Your task to perform on an android device: Go to Amazon Image 0: 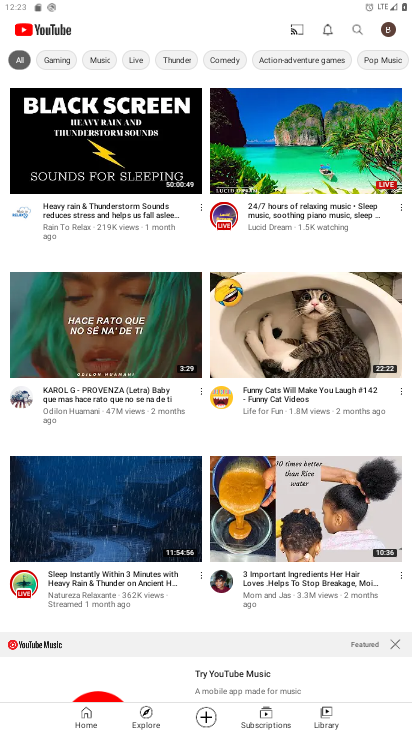
Step 0: press home button
Your task to perform on an android device: Go to Amazon Image 1: 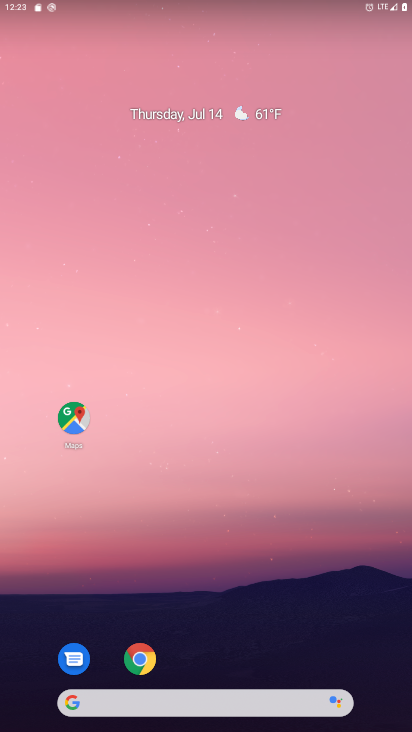
Step 1: click (148, 655)
Your task to perform on an android device: Go to Amazon Image 2: 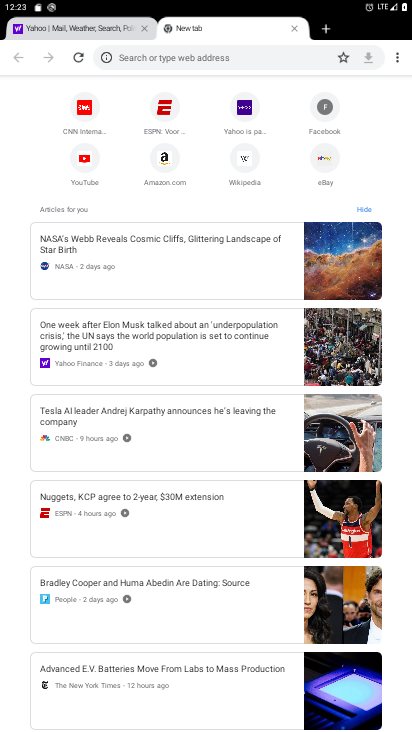
Step 2: click (161, 154)
Your task to perform on an android device: Go to Amazon Image 3: 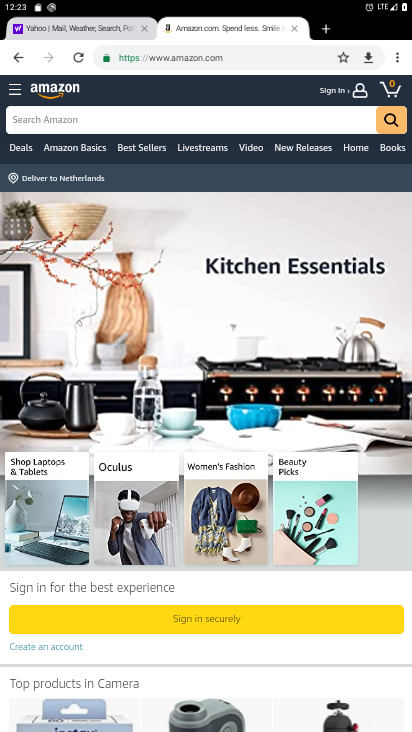
Step 3: task complete